Your task to perform on an android device: Go to settings Image 0: 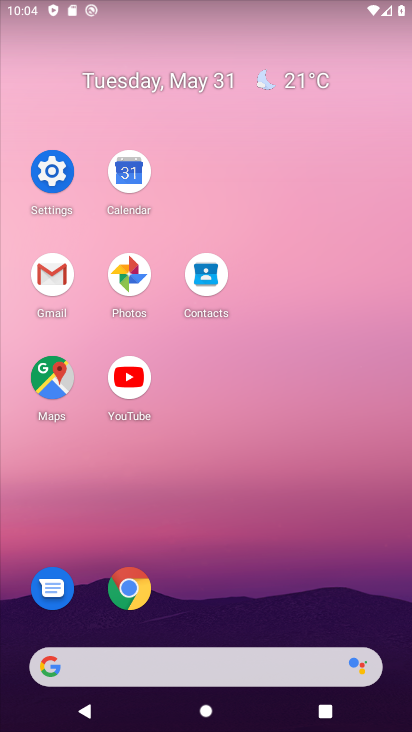
Step 0: click (65, 183)
Your task to perform on an android device: Go to settings Image 1: 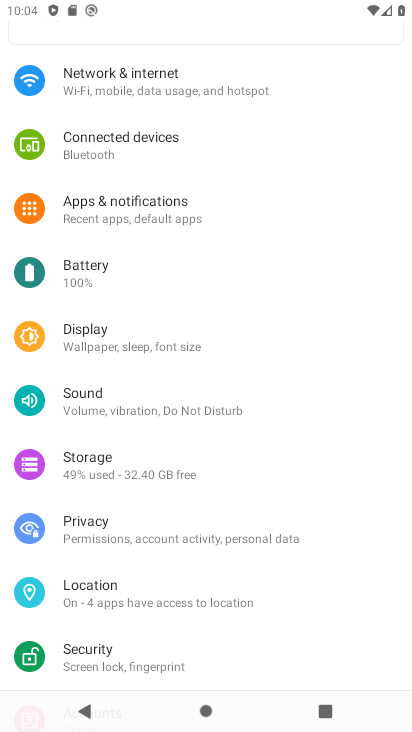
Step 1: task complete